Your task to perform on an android device: turn on sleep mode Image 0: 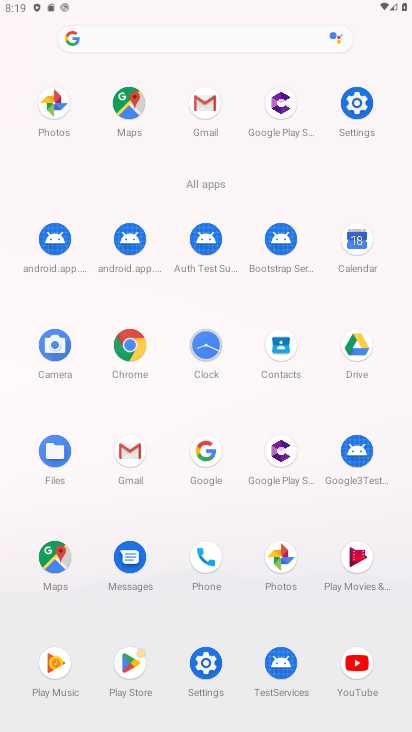
Step 0: click (360, 109)
Your task to perform on an android device: turn on sleep mode Image 1: 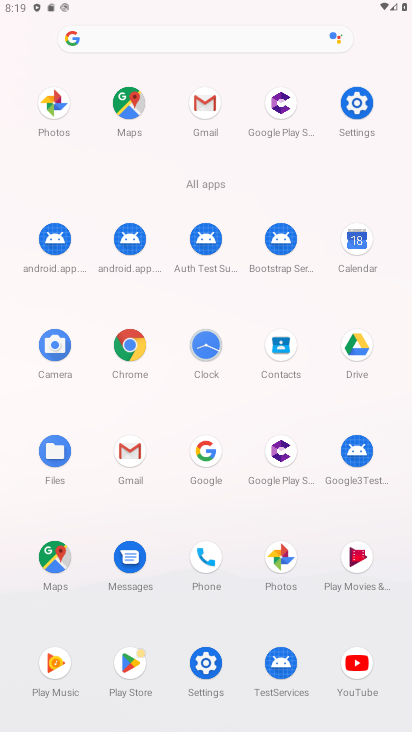
Step 1: click (359, 110)
Your task to perform on an android device: turn on sleep mode Image 2: 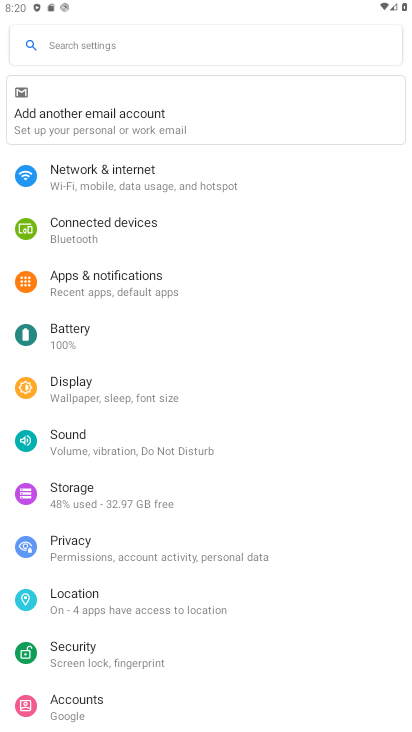
Step 2: click (96, 389)
Your task to perform on an android device: turn on sleep mode Image 3: 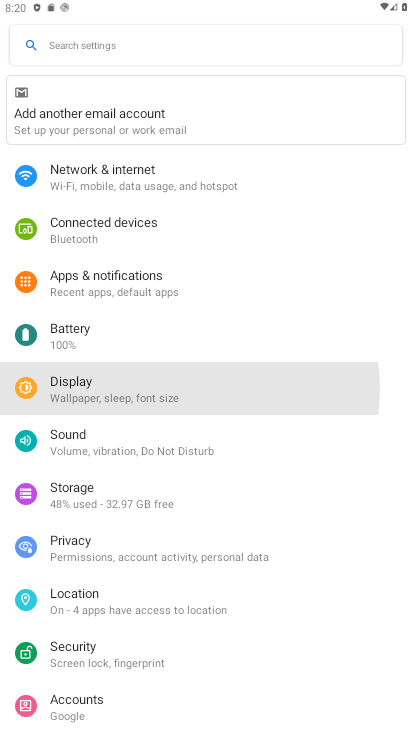
Step 3: click (96, 389)
Your task to perform on an android device: turn on sleep mode Image 4: 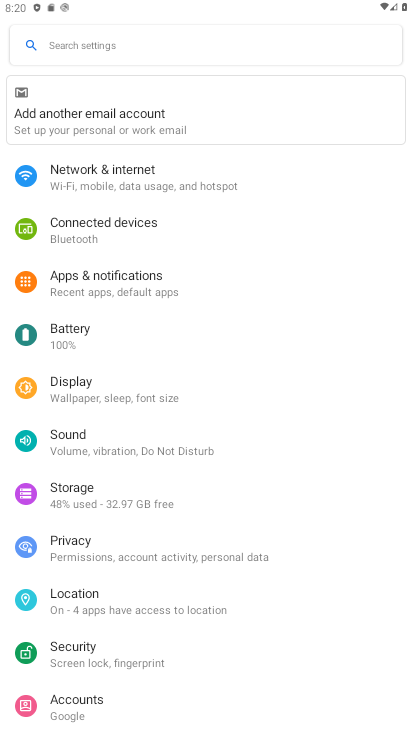
Step 4: click (96, 389)
Your task to perform on an android device: turn on sleep mode Image 5: 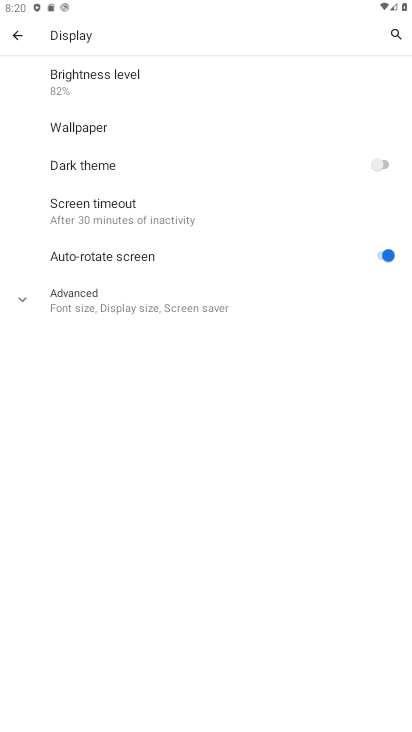
Step 5: click (87, 218)
Your task to perform on an android device: turn on sleep mode Image 6: 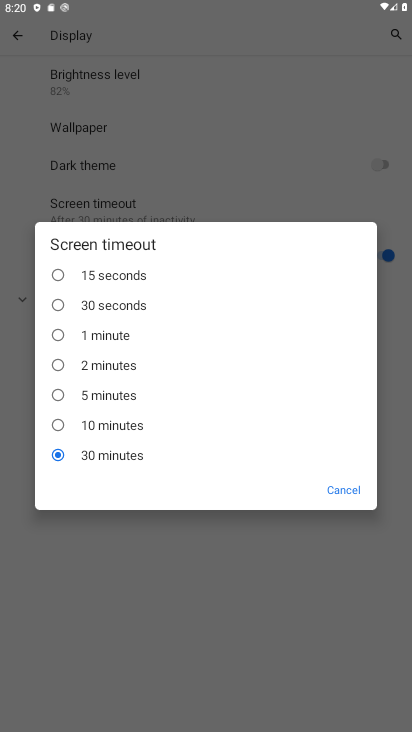
Step 6: task complete